Your task to perform on an android device: open app "Spotify: Music and Podcasts" Image 0: 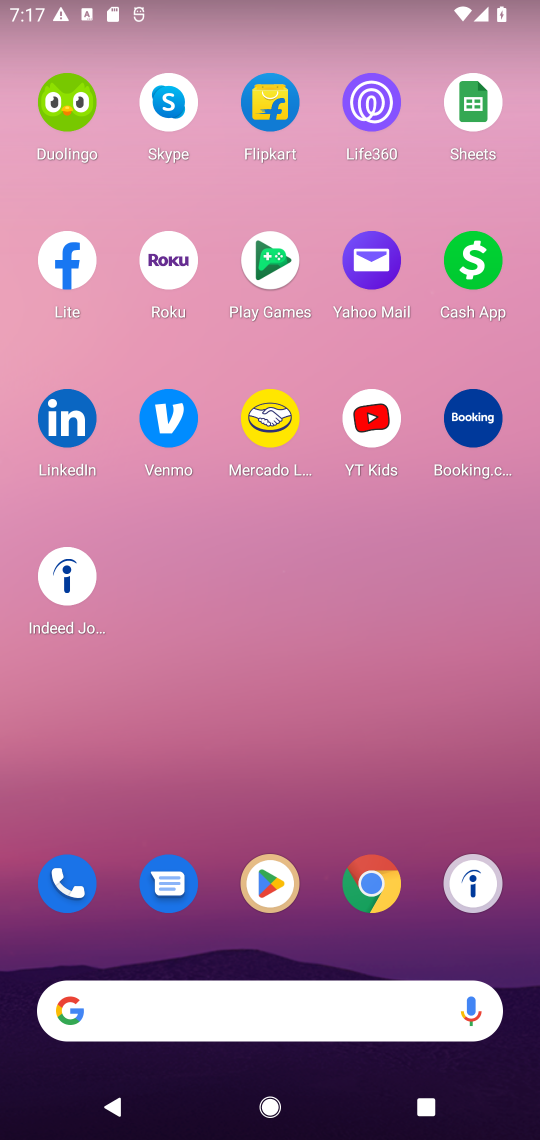
Step 0: drag from (324, 897) to (313, 122)
Your task to perform on an android device: open app "Spotify: Music and Podcasts" Image 1: 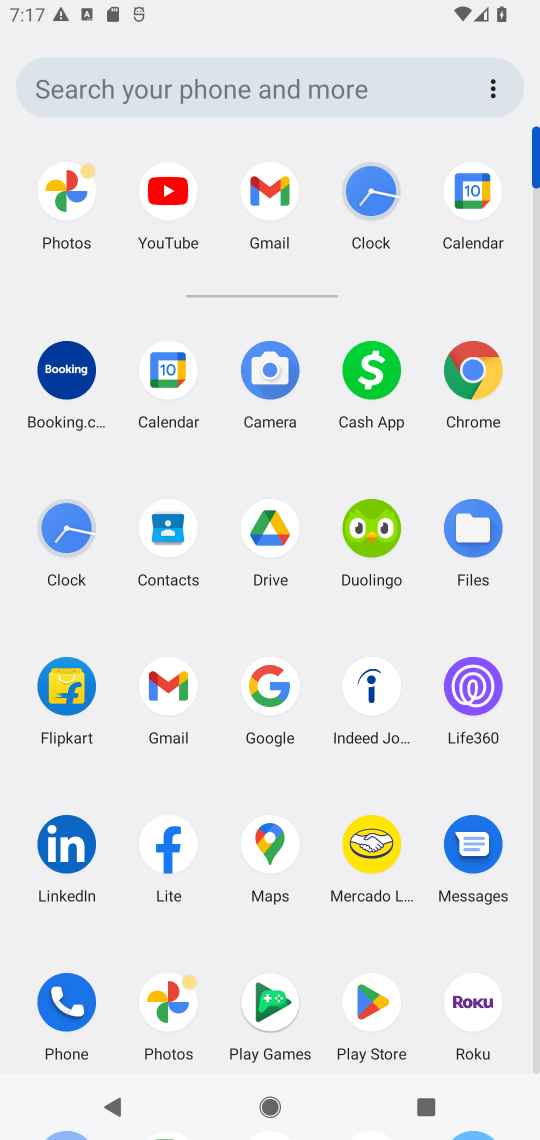
Step 1: click (362, 1003)
Your task to perform on an android device: open app "Spotify: Music and Podcasts" Image 2: 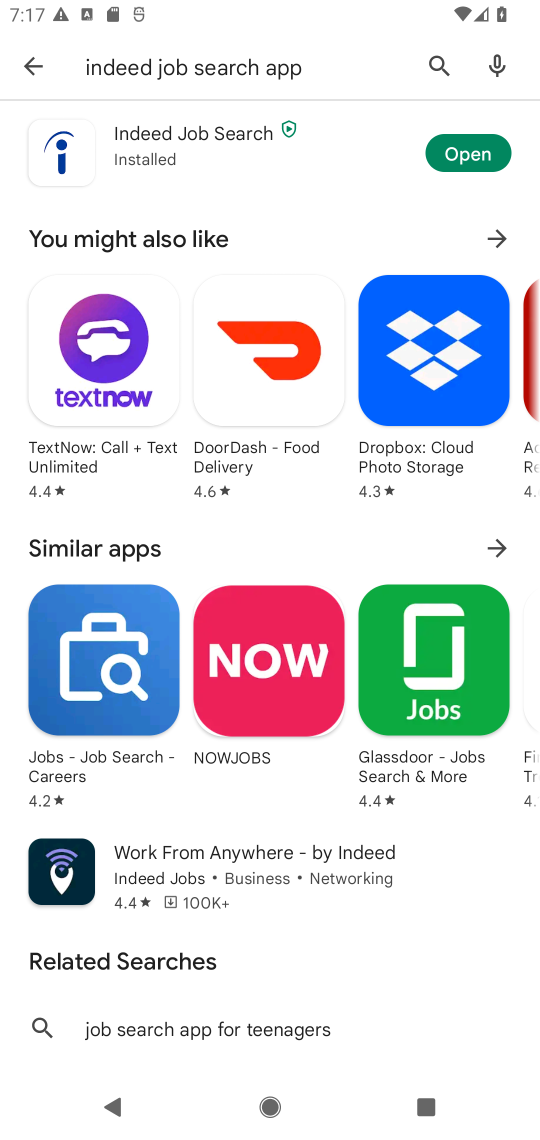
Step 2: click (435, 60)
Your task to perform on an android device: open app "Spotify: Music and Podcasts" Image 3: 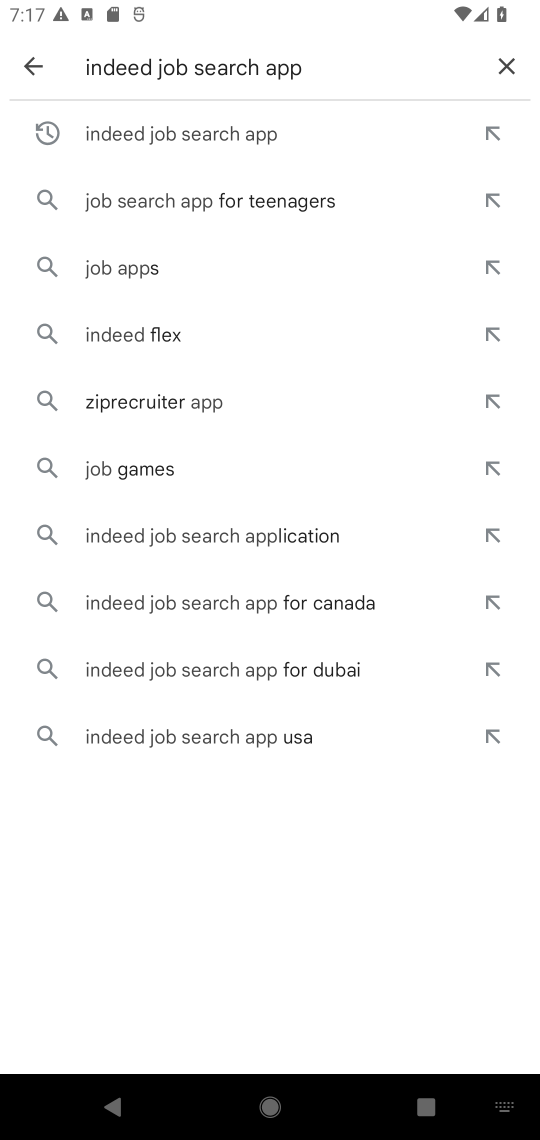
Step 3: click (503, 60)
Your task to perform on an android device: open app "Spotify: Music and Podcasts" Image 4: 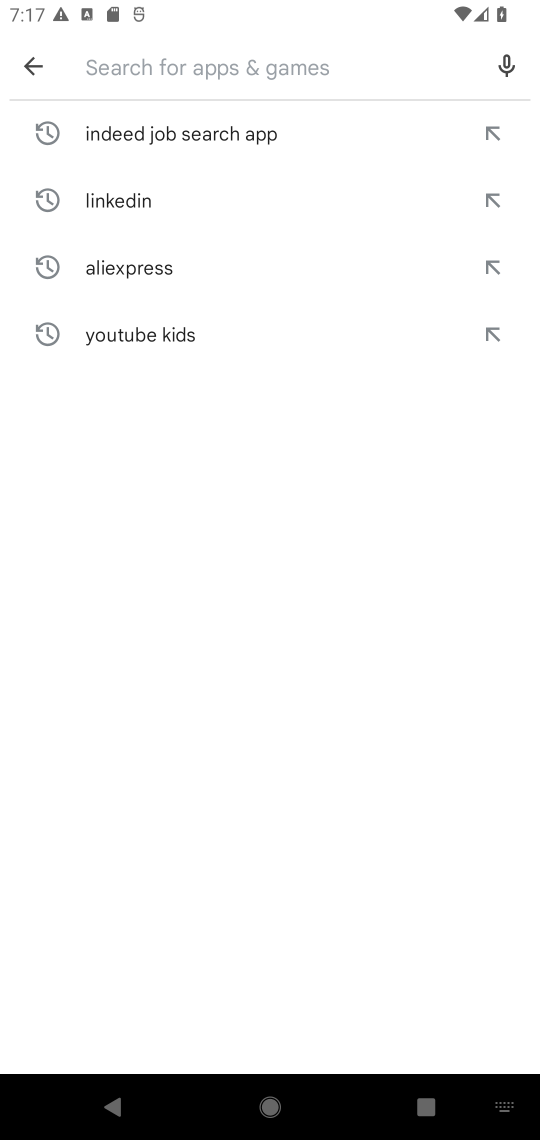
Step 4: type "Spotify: Music and Podcasts"
Your task to perform on an android device: open app "Spotify: Music and Podcasts" Image 5: 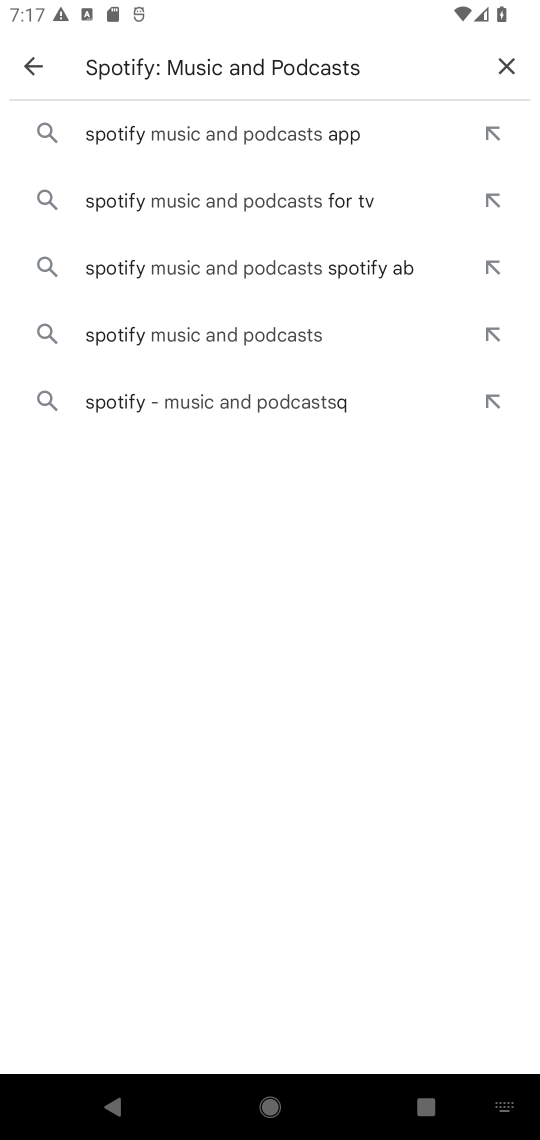
Step 5: click (280, 125)
Your task to perform on an android device: open app "Spotify: Music and Podcasts" Image 6: 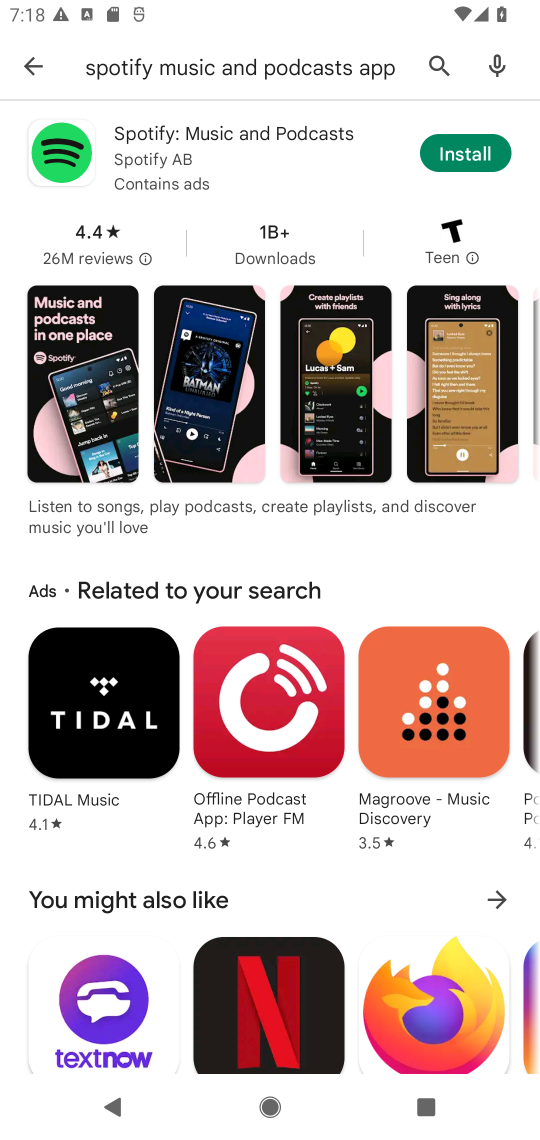
Step 6: task complete